Your task to perform on an android device: Open Wikipedia Image 0: 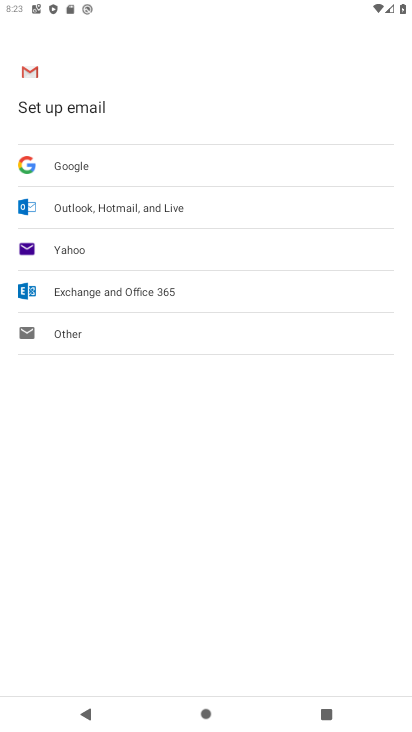
Step 0: press home button
Your task to perform on an android device: Open Wikipedia Image 1: 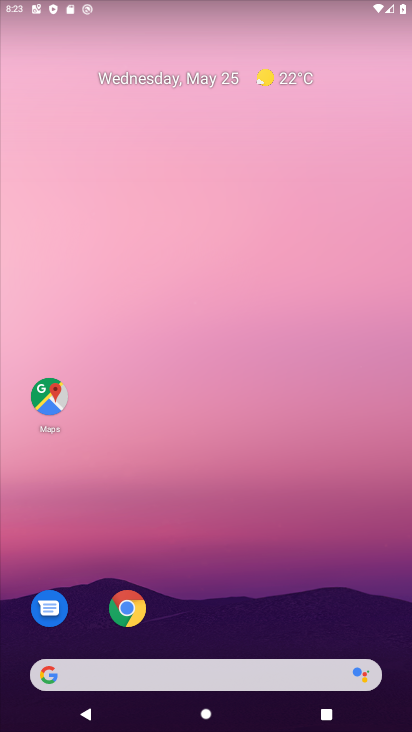
Step 1: click (126, 607)
Your task to perform on an android device: Open Wikipedia Image 2: 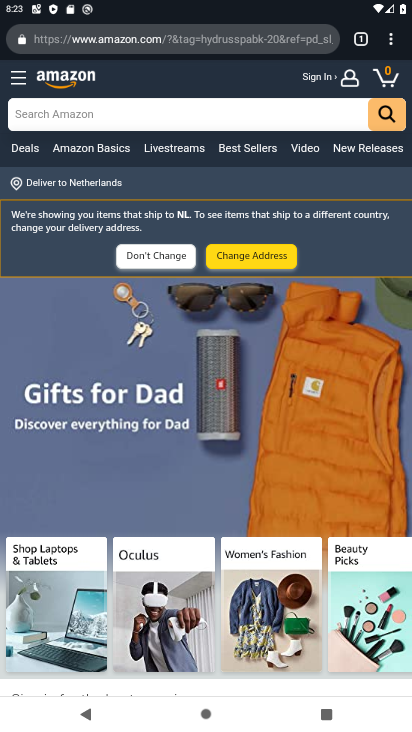
Step 2: click (175, 40)
Your task to perform on an android device: Open Wikipedia Image 3: 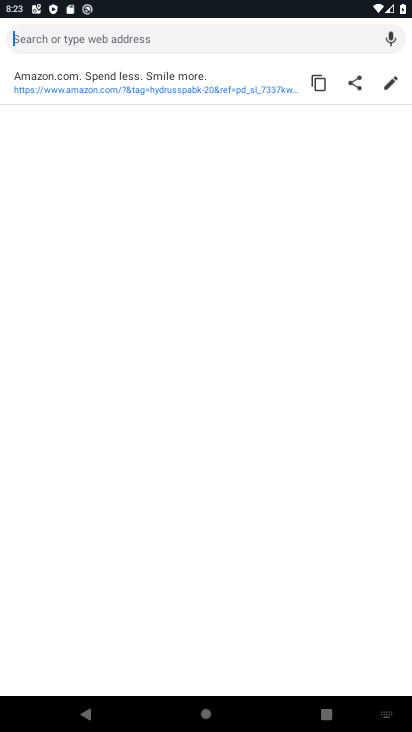
Step 3: type "Wikipedia"
Your task to perform on an android device: Open Wikipedia Image 4: 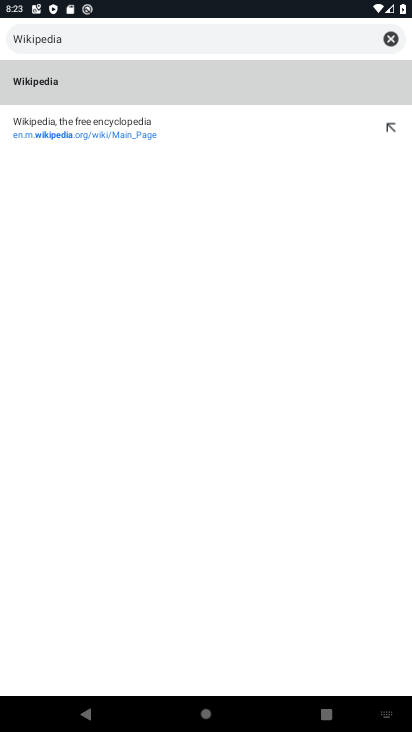
Step 4: click (53, 80)
Your task to perform on an android device: Open Wikipedia Image 5: 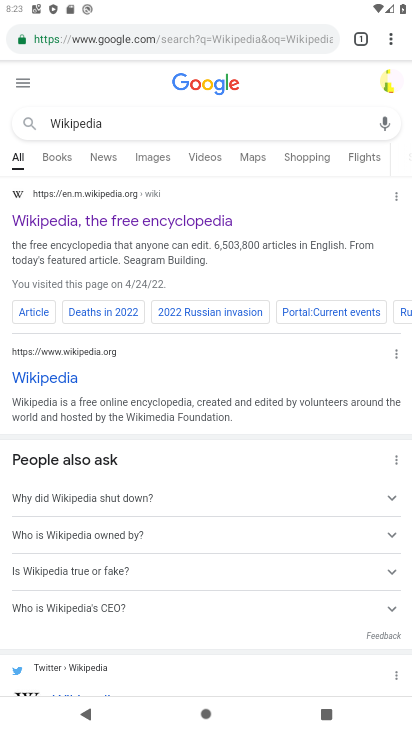
Step 5: click (62, 219)
Your task to perform on an android device: Open Wikipedia Image 6: 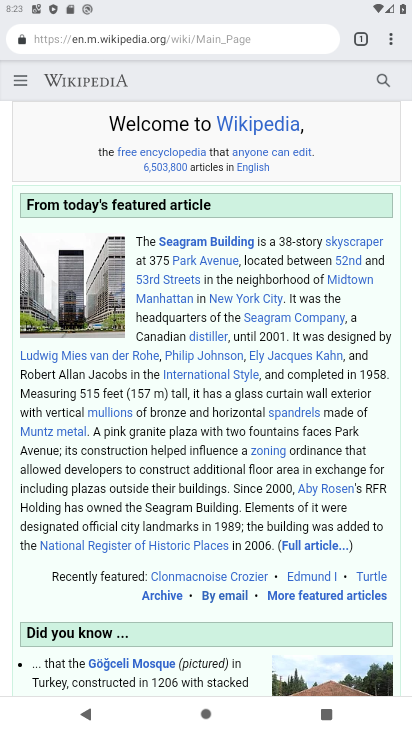
Step 6: task complete